Your task to perform on an android device: turn off notifications settings in the gmail app Image 0: 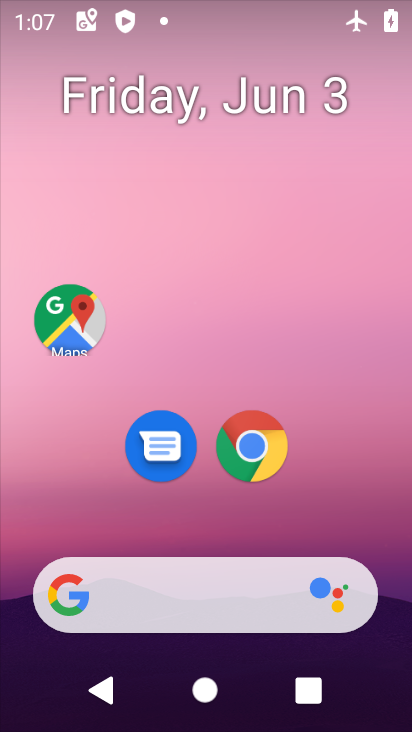
Step 0: drag from (143, 577) to (261, 143)
Your task to perform on an android device: turn off notifications settings in the gmail app Image 1: 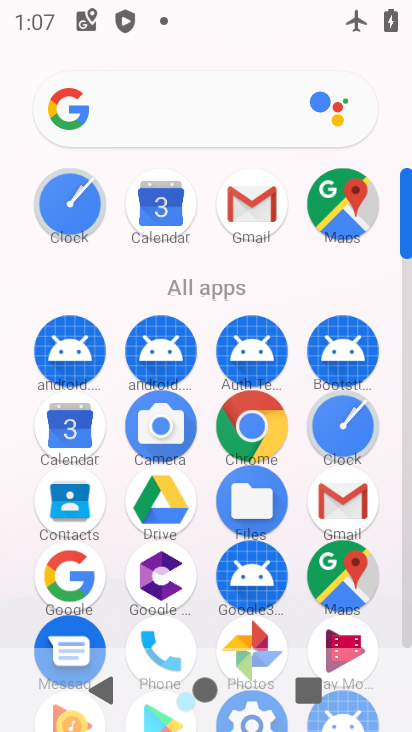
Step 1: click (229, 198)
Your task to perform on an android device: turn off notifications settings in the gmail app Image 2: 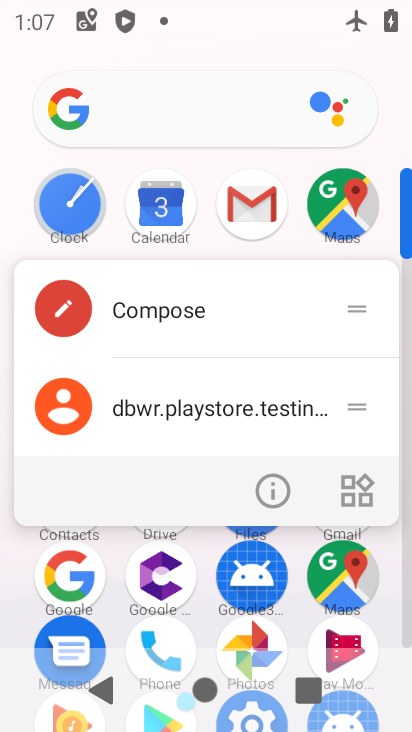
Step 2: click (265, 489)
Your task to perform on an android device: turn off notifications settings in the gmail app Image 3: 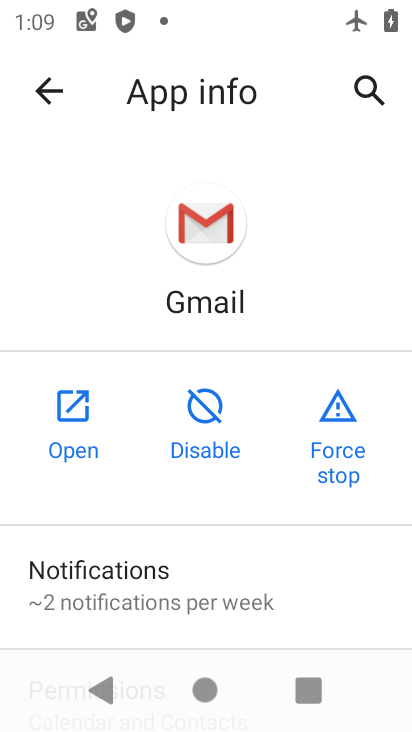
Step 3: click (135, 597)
Your task to perform on an android device: turn off notifications settings in the gmail app Image 4: 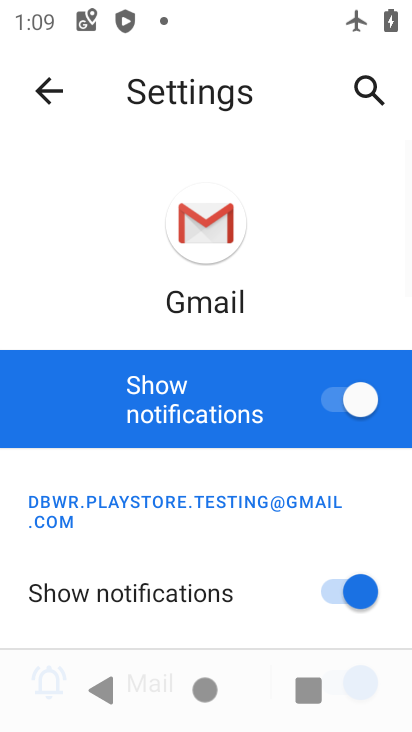
Step 4: click (348, 406)
Your task to perform on an android device: turn off notifications settings in the gmail app Image 5: 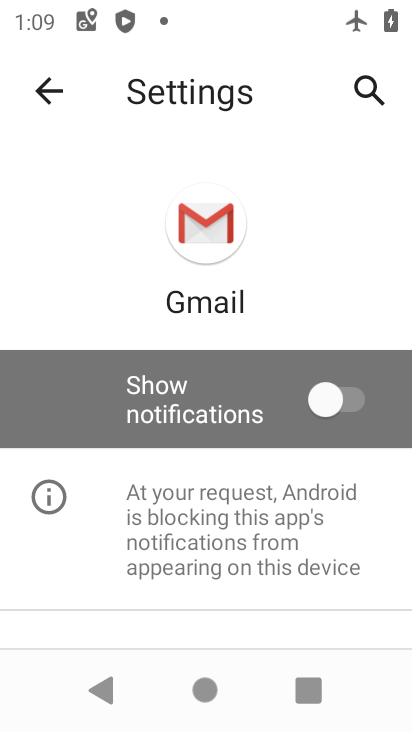
Step 5: task complete